Your task to perform on an android device: check data usage Image 0: 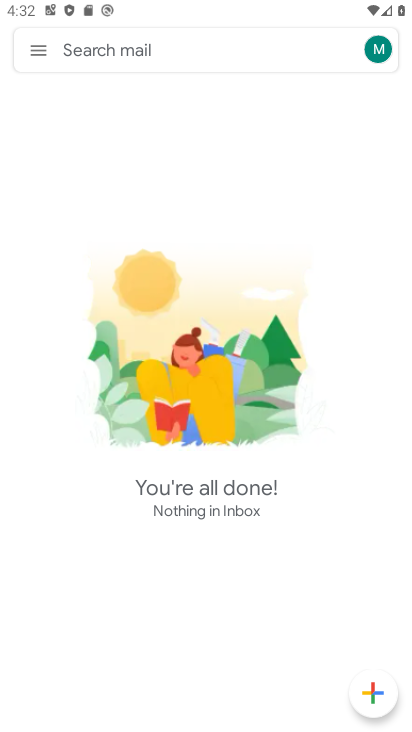
Step 0: drag from (268, 4) to (299, 473)
Your task to perform on an android device: check data usage Image 1: 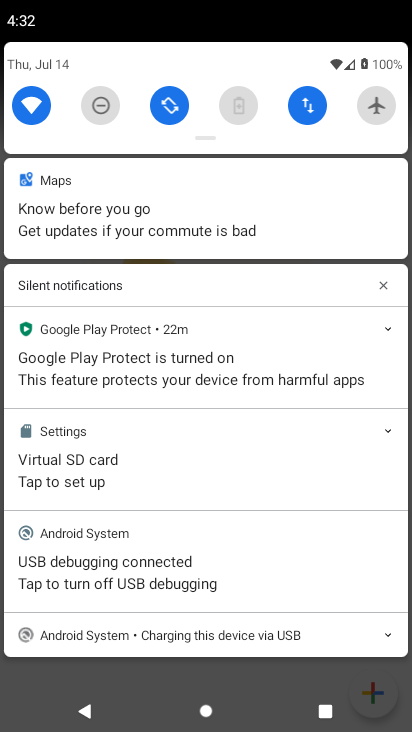
Step 1: click (308, 110)
Your task to perform on an android device: check data usage Image 2: 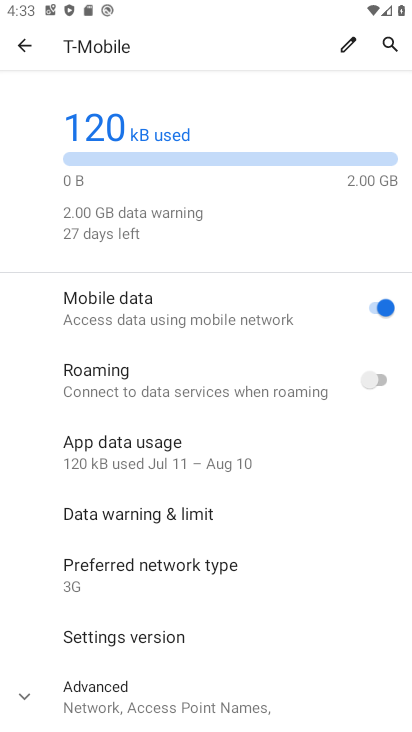
Step 2: task complete